Your task to perform on an android device: Go to eBay Image 0: 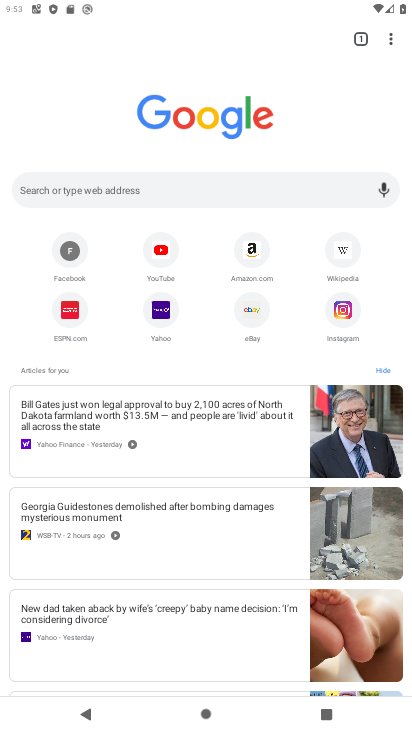
Step 0: click (253, 317)
Your task to perform on an android device: Go to eBay Image 1: 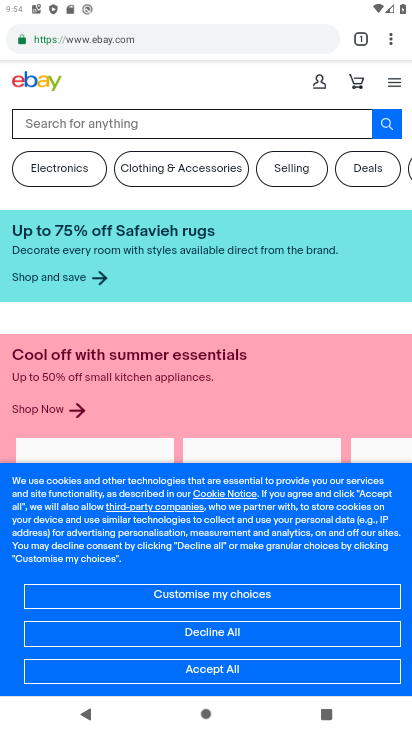
Step 1: task complete